Your task to perform on an android device: empty trash in the gmail app Image 0: 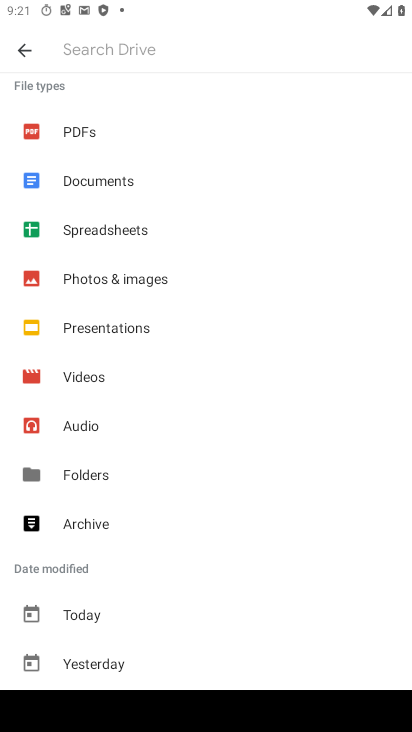
Step 0: press home button
Your task to perform on an android device: empty trash in the gmail app Image 1: 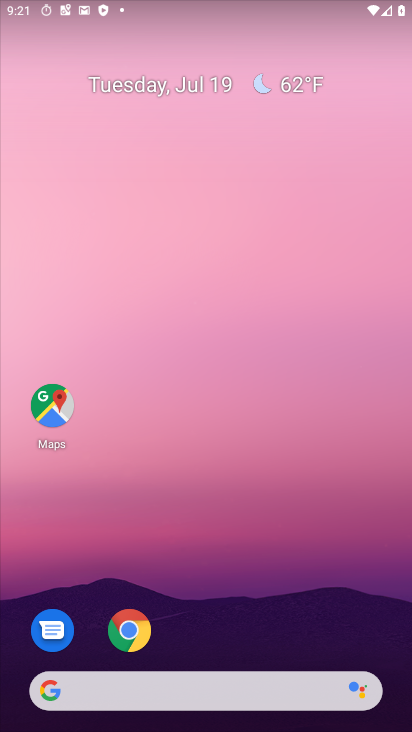
Step 1: drag from (141, 430) to (208, 194)
Your task to perform on an android device: empty trash in the gmail app Image 2: 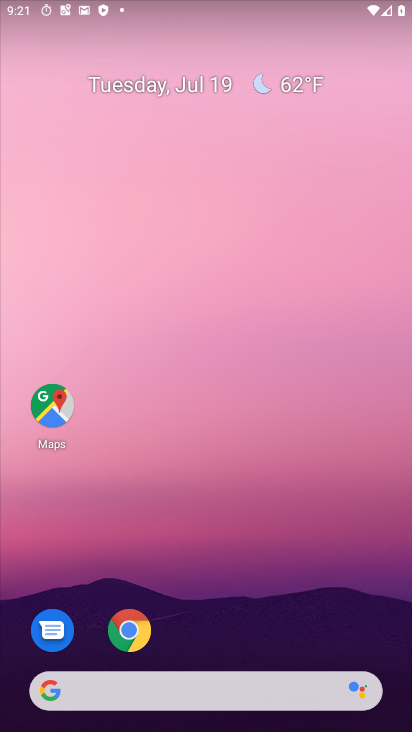
Step 2: drag from (27, 688) to (234, 121)
Your task to perform on an android device: empty trash in the gmail app Image 3: 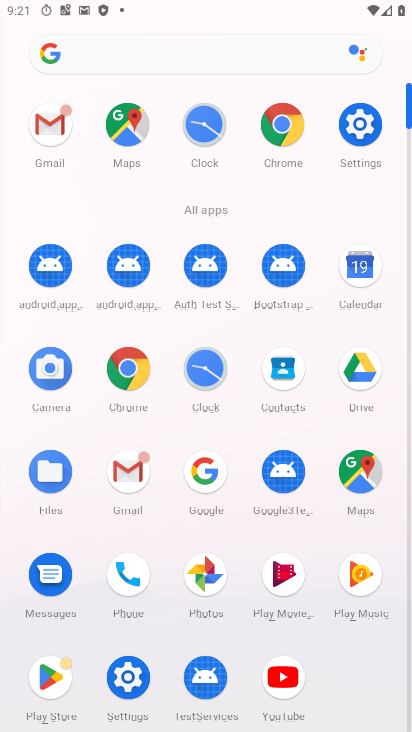
Step 3: click (130, 464)
Your task to perform on an android device: empty trash in the gmail app Image 4: 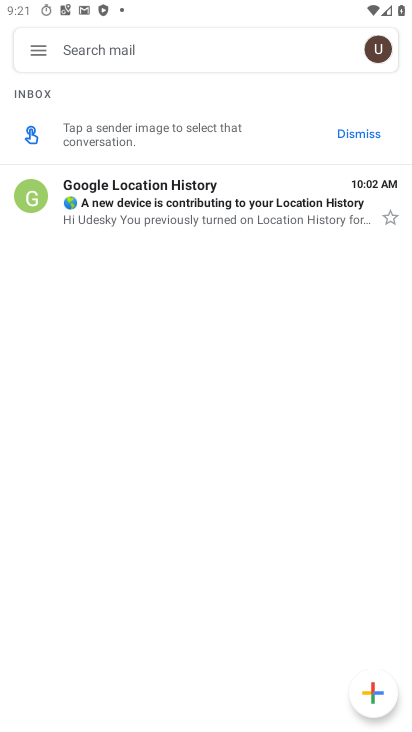
Step 4: click (39, 48)
Your task to perform on an android device: empty trash in the gmail app Image 5: 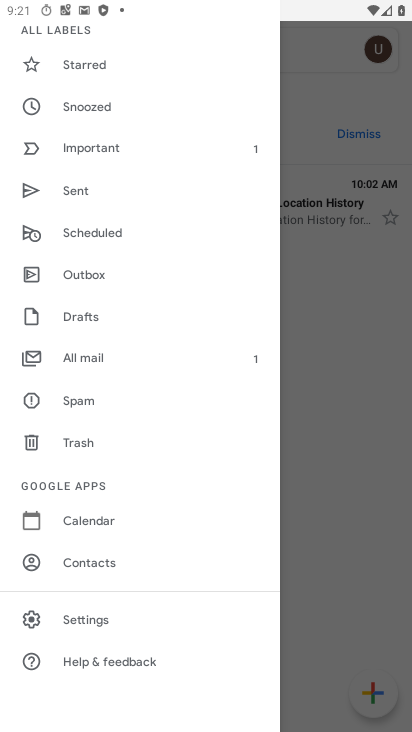
Step 5: click (72, 444)
Your task to perform on an android device: empty trash in the gmail app Image 6: 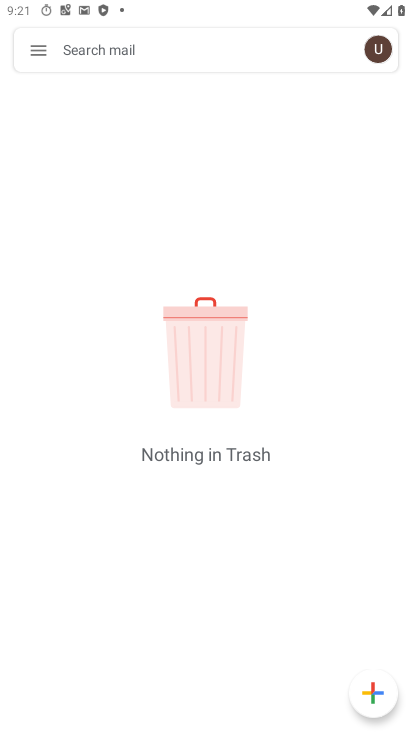
Step 6: task complete